Your task to perform on an android device: turn on priority inbox in the gmail app Image 0: 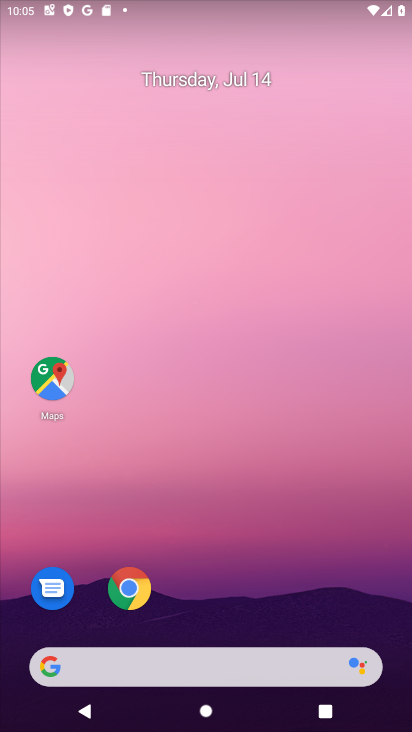
Step 0: drag from (190, 663) to (350, 0)
Your task to perform on an android device: turn on priority inbox in the gmail app Image 1: 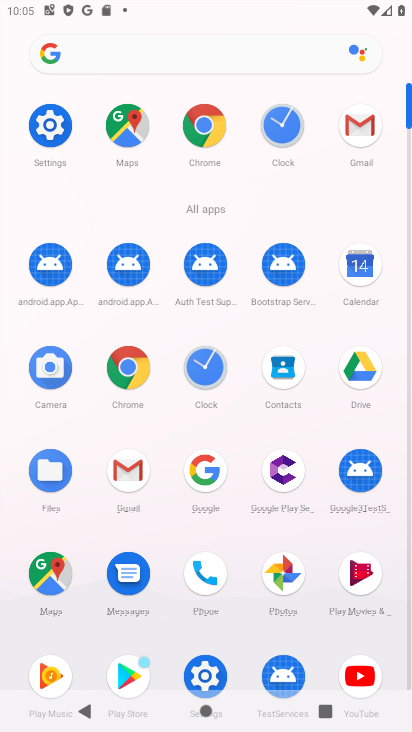
Step 1: click (357, 130)
Your task to perform on an android device: turn on priority inbox in the gmail app Image 2: 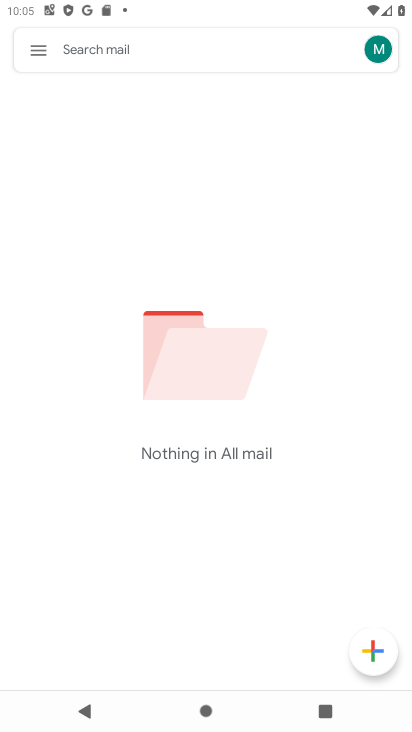
Step 2: click (36, 54)
Your task to perform on an android device: turn on priority inbox in the gmail app Image 3: 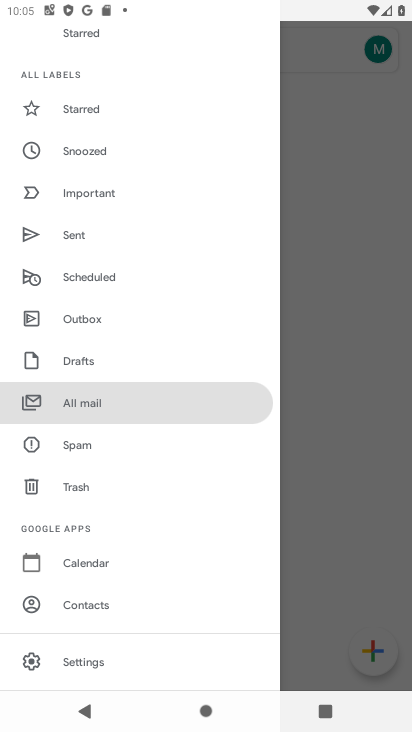
Step 3: click (97, 657)
Your task to perform on an android device: turn on priority inbox in the gmail app Image 4: 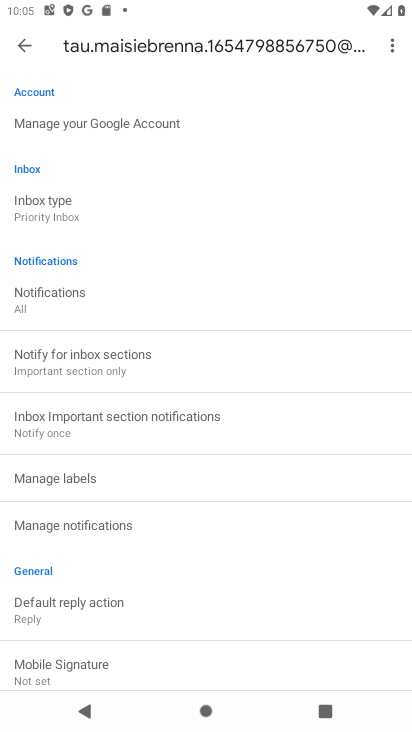
Step 4: click (42, 204)
Your task to perform on an android device: turn on priority inbox in the gmail app Image 5: 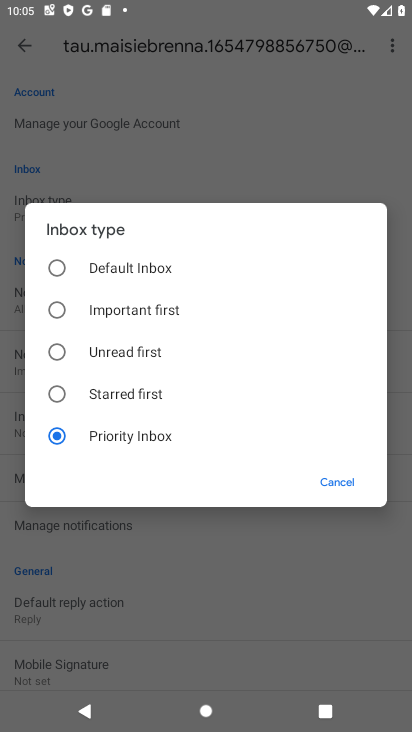
Step 5: task complete